Your task to perform on an android device: Open network settings Image 0: 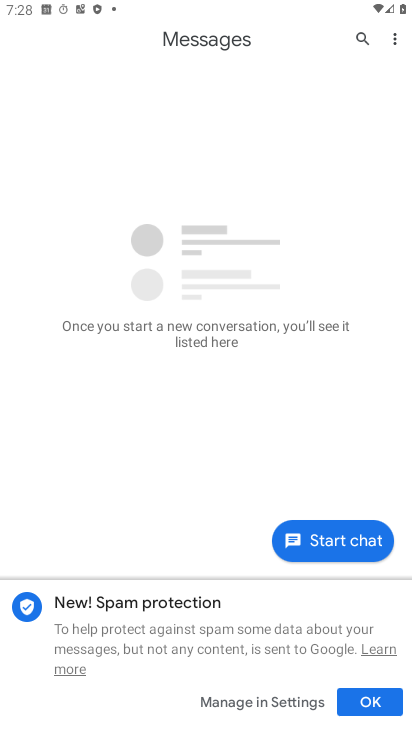
Step 0: press home button
Your task to perform on an android device: Open network settings Image 1: 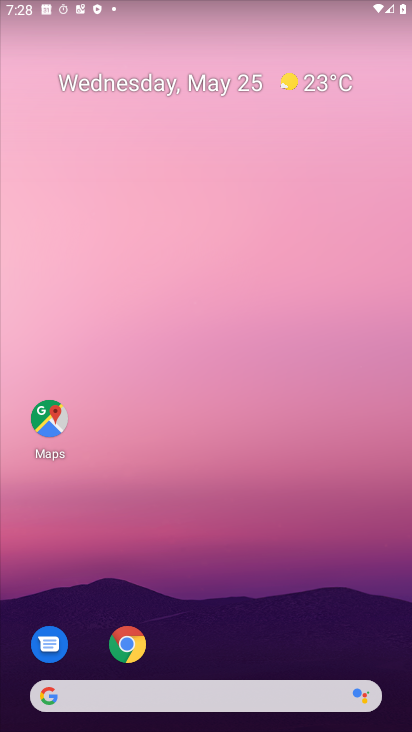
Step 1: drag from (203, 714) to (269, 205)
Your task to perform on an android device: Open network settings Image 2: 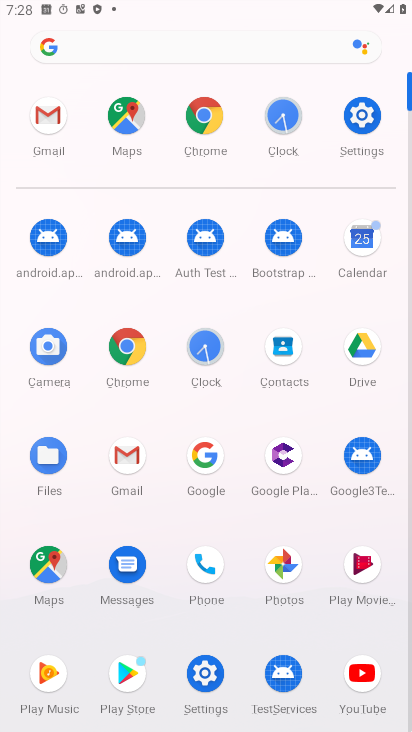
Step 2: click (369, 123)
Your task to perform on an android device: Open network settings Image 3: 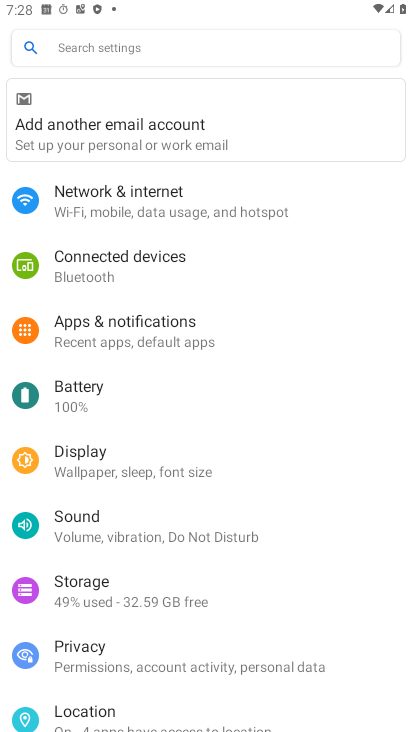
Step 3: click (127, 49)
Your task to perform on an android device: Open network settings Image 4: 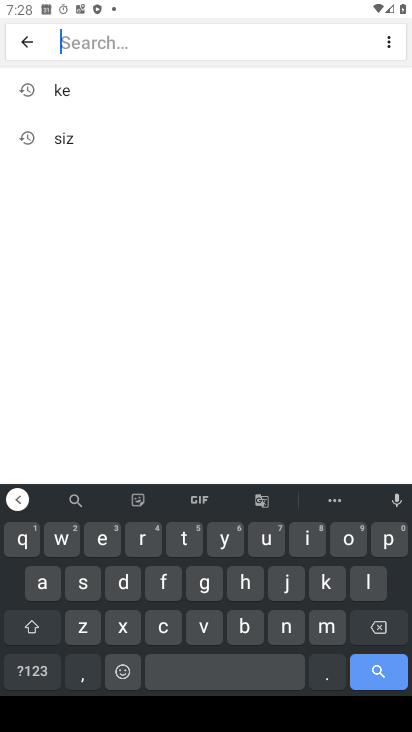
Step 4: click (23, 42)
Your task to perform on an android device: Open network settings Image 5: 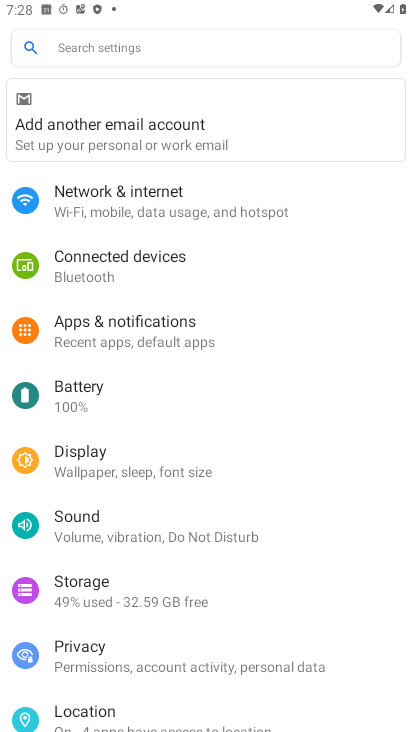
Step 5: click (165, 194)
Your task to perform on an android device: Open network settings Image 6: 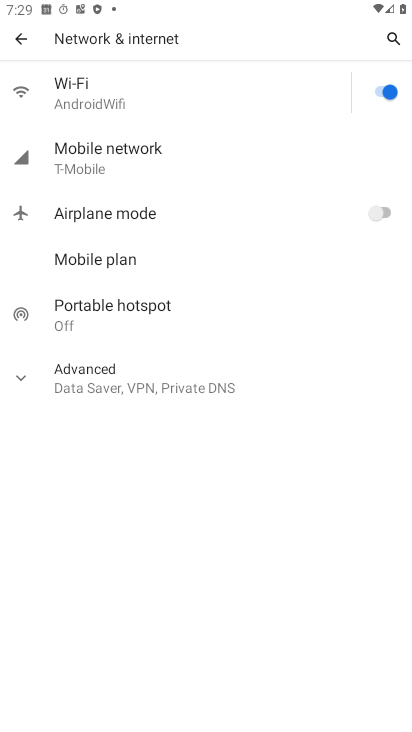
Step 6: task complete